Your task to perform on an android device: turn on showing notifications on the lock screen Image 0: 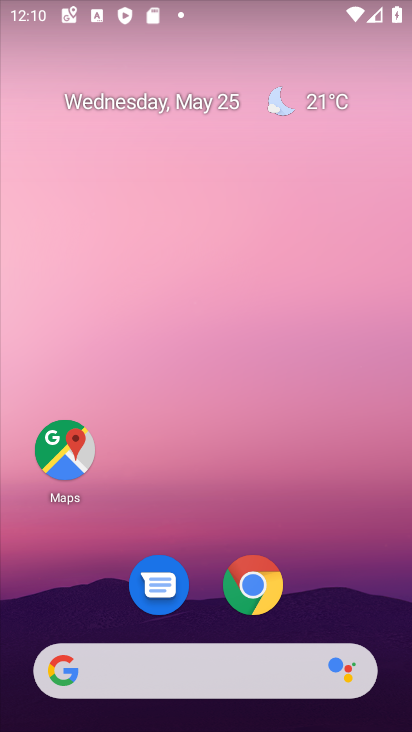
Step 0: drag from (258, 509) to (291, 32)
Your task to perform on an android device: turn on showing notifications on the lock screen Image 1: 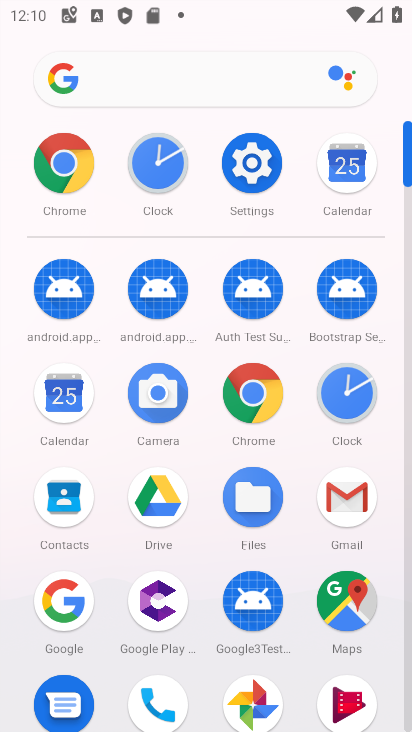
Step 1: click (270, 151)
Your task to perform on an android device: turn on showing notifications on the lock screen Image 2: 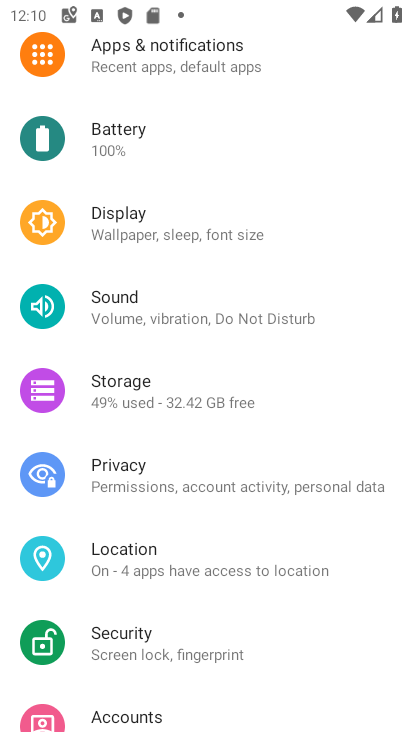
Step 2: drag from (235, 352) to (224, 497)
Your task to perform on an android device: turn on showing notifications on the lock screen Image 3: 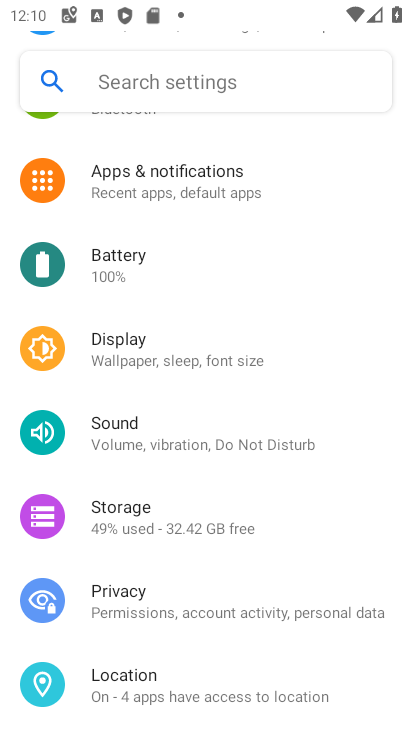
Step 3: click (239, 181)
Your task to perform on an android device: turn on showing notifications on the lock screen Image 4: 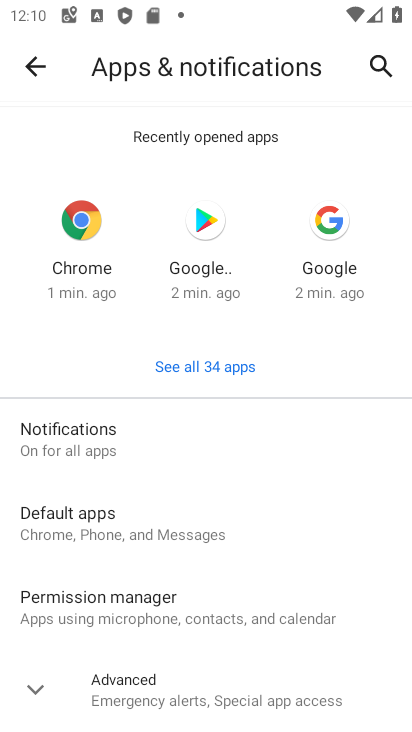
Step 4: click (179, 437)
Your task to perform on an android device: turn on showing notifications on the lock screen Image 5: 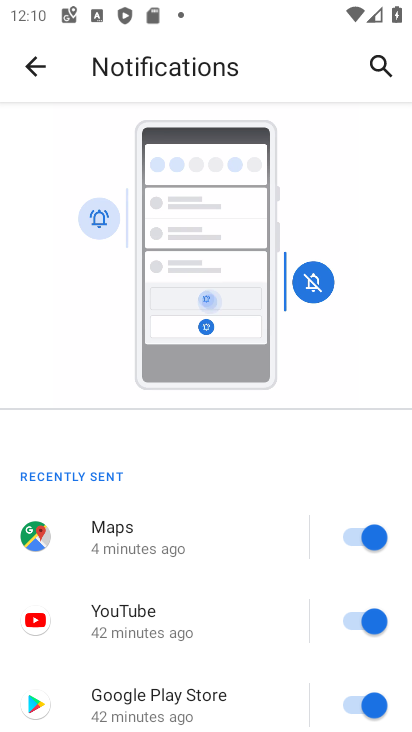
Step 5: task complete